Your task to perform on an android device: Search for vegetarian restaurants on Maps Image 0: 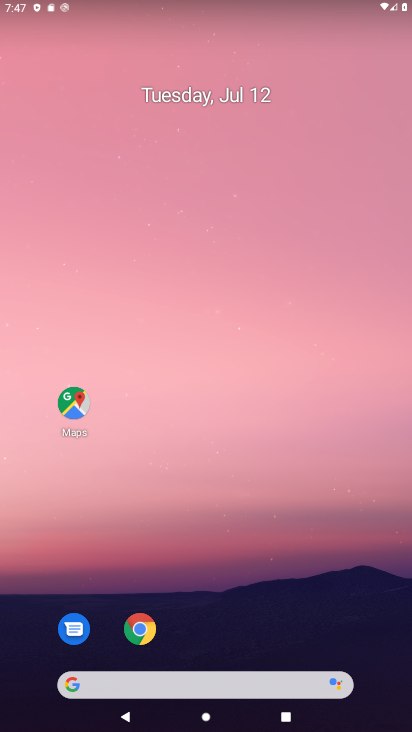
Step 0: drag from (275, 715) to (267, 206)
Your task to perform on an android device: Search for vegetarian restaurants on Maps Image 1: 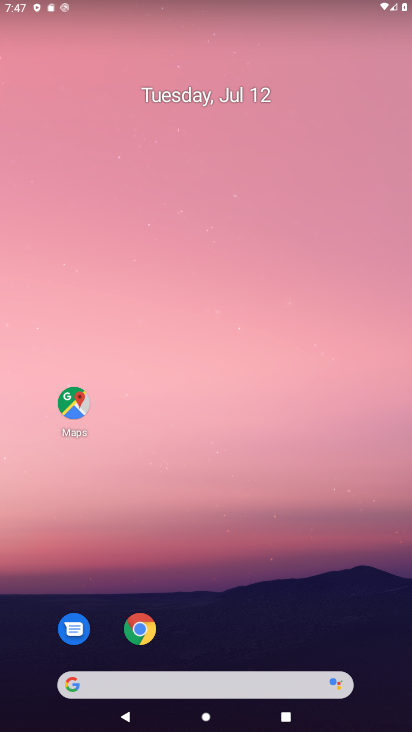
Step 1: drag from (137, 363) to (216, 16)
Your task to perform on an android device: Search for vegetarian restaurants on Maps Image 2: 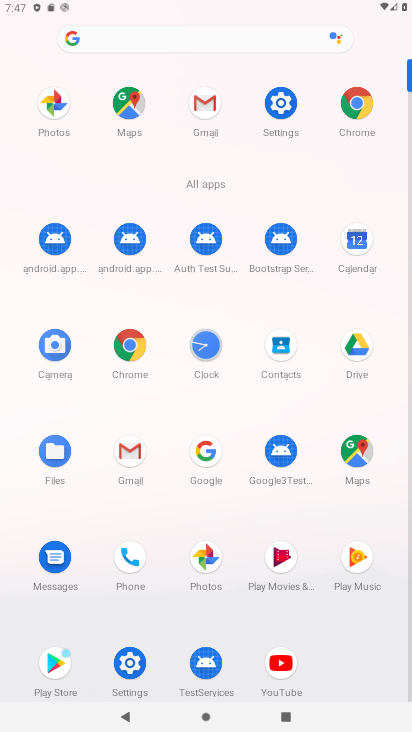
Step 2: click (351, 456)
Your task to perform on an android device: Search for vegetarian restaurants on Maps Image 3: 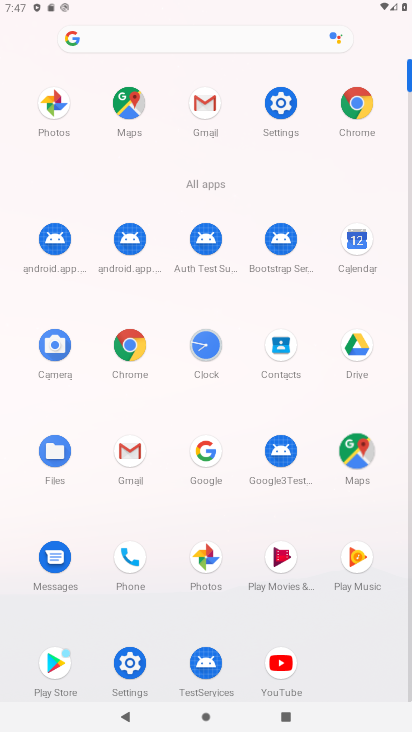
Step 3: click (353, 456)
Your task to perform on an android device: Search for vegetarian restaurants on Maps Image 4: 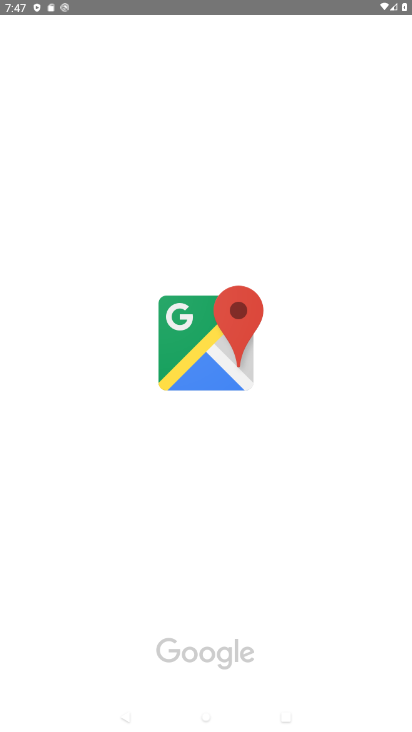
Step 4: click (353, 456)
Your task to perform on an android device: Search for vegetarian restaurants on Maps Image 5: 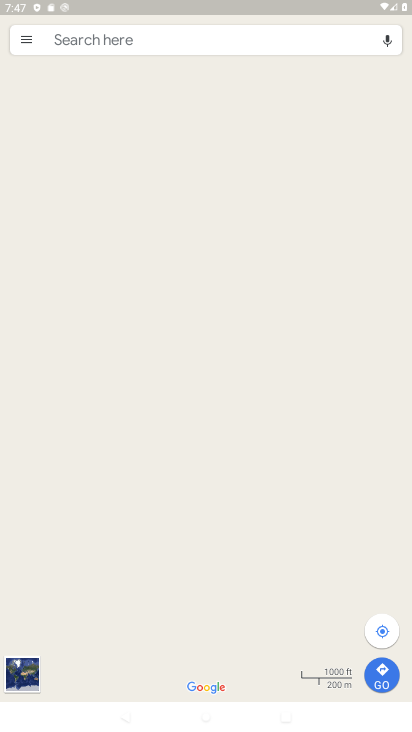
Step 5: click (69, 38)
Your task to perform on an android device: Search for vegetarian restaurants on Maps Image 6: 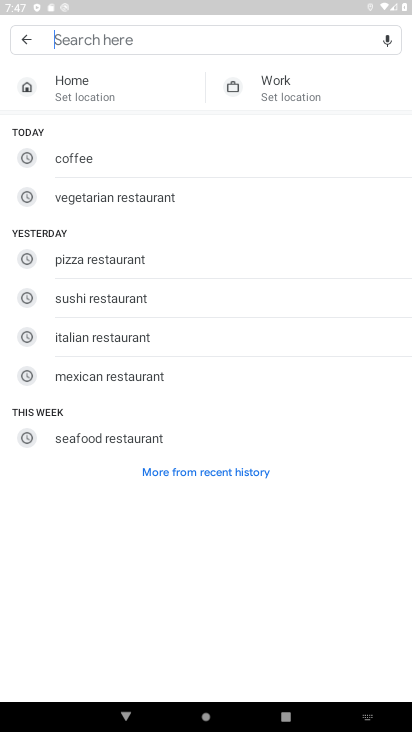
Step 6: type "vegetarian restaurants"
Your task to perform on an android device: Search for vegetarian restaurants on Maps Image 7: 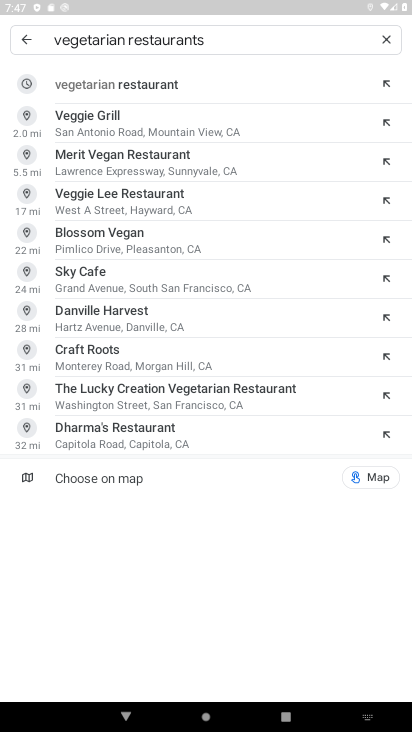
Step 7: click (128, 84)
Your task to perform on an android device: Search for vegetarian restaurants on Maps Image 8: 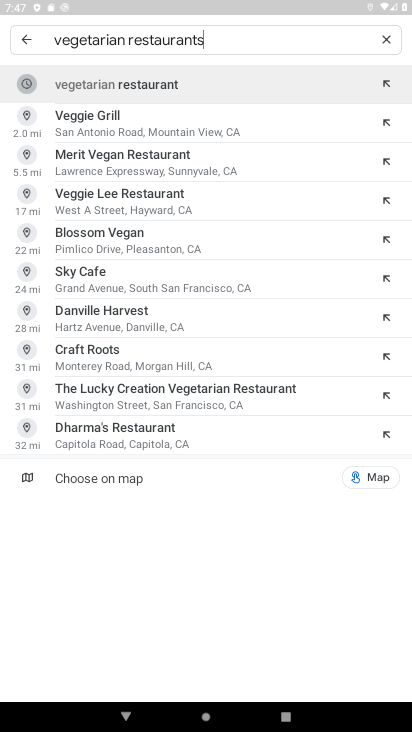
Step 8: click (125, 81)
Your task to perform on an android device: Search for vegetarian restaurants on Maps Image 9: 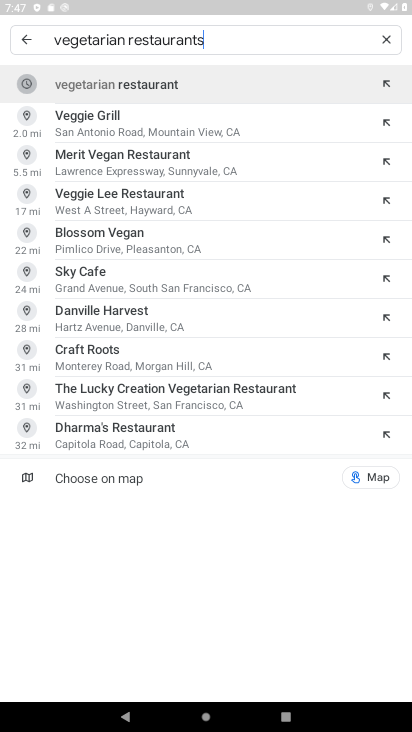
Step 9: click (126, 82)
Your task to perform on an android device: Search for vegetarian restaurants on Maps Image 10: 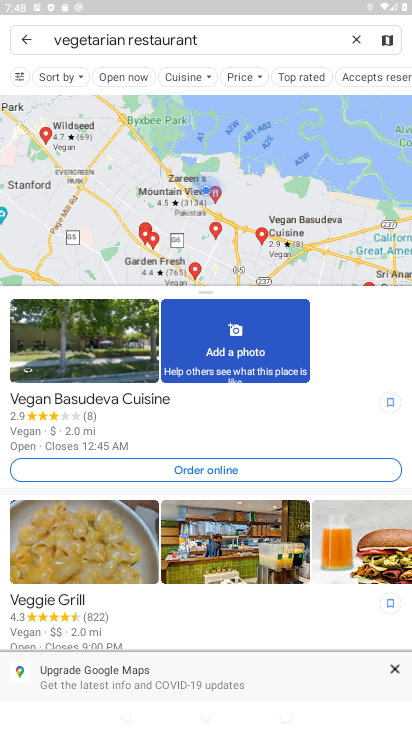
Step 10: task complete